Your task to perform on an android device: Open my contact list Image 0: 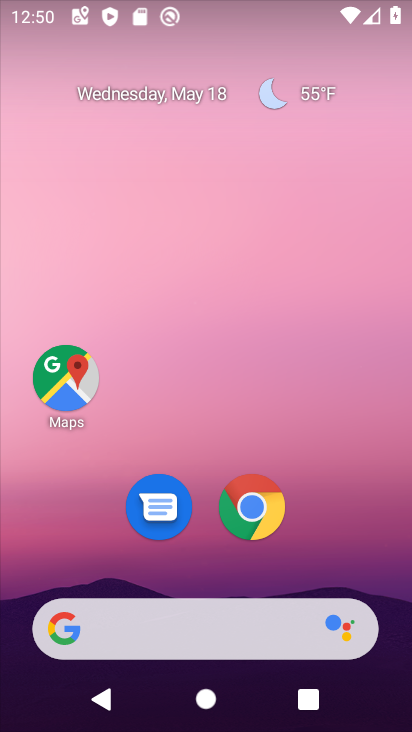
Step 0: drag from (386, 627) to (272, 22)
Your task to perform on an android device: Open my contact list Image 1: 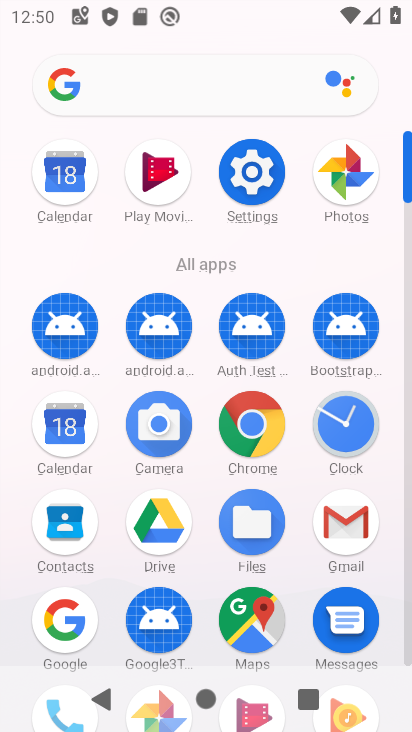
Step 1: click (409, 650)
Your task to perform on an android device: Open my contact list Image 2: 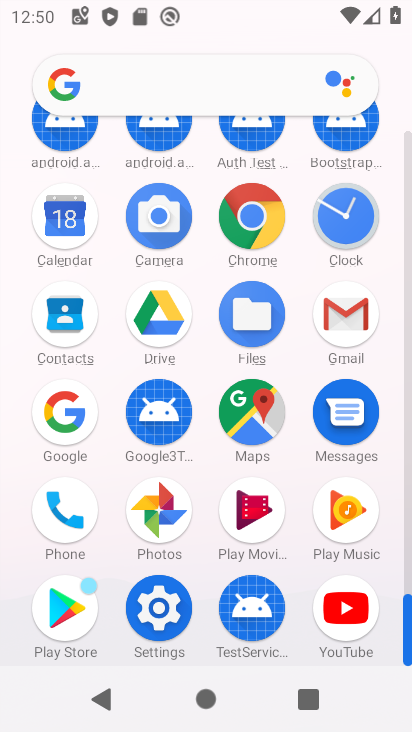
Step 2: click (64, 318)
Your task to perform on an android device: Open my contact list Image 3: 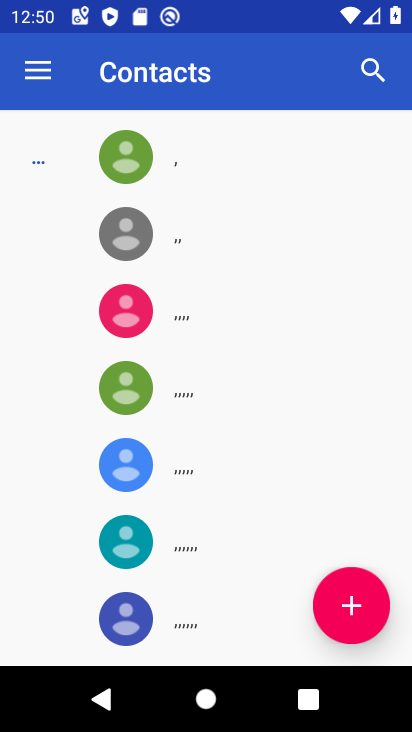
Step 3: task complete